Your task to perform on an android device: manage bookmarks in the chrome app Image 0: 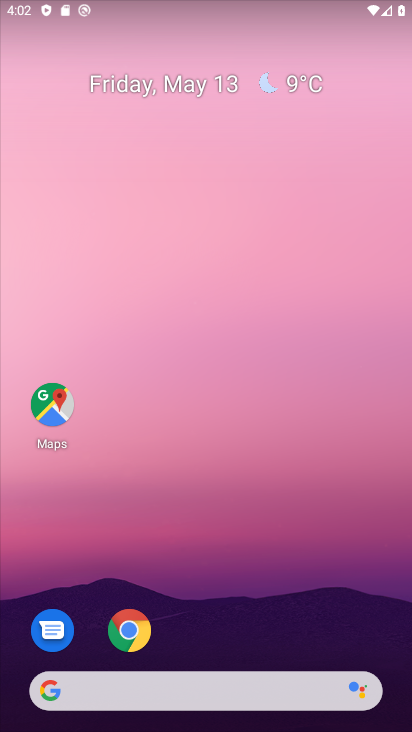
Step 0: drag from (248, 564) to (302, 126)
Your task to perform on an android device: manage bookmarks in the chrome app Image 1: 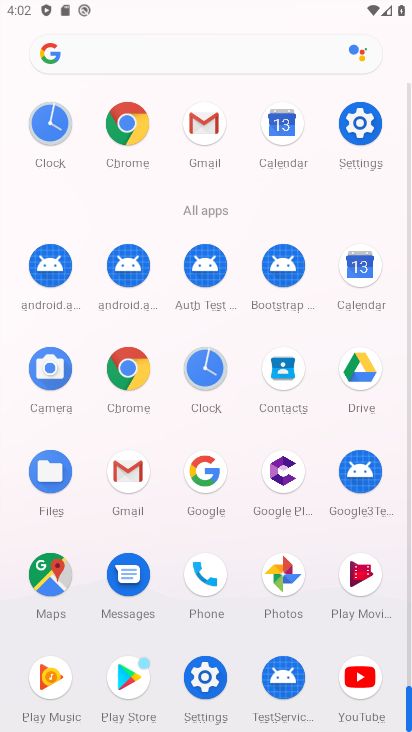
Step 1: click (21, 294)
Your task to perform on an android device: manage bookmarks in the chrome app Image 2: 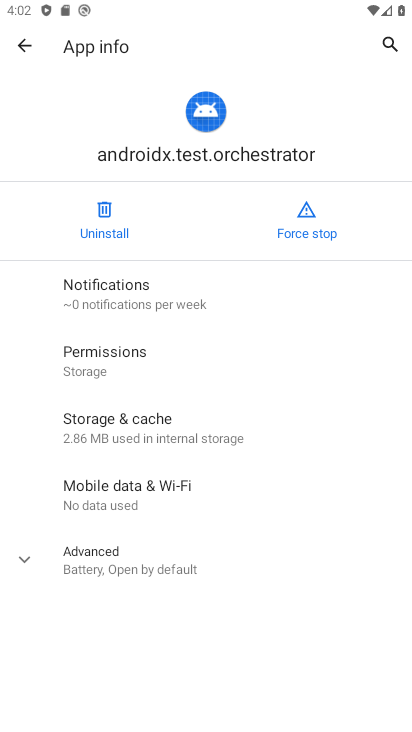
Step 2: click (27, 556)
Your task to perform on an android device: manage bookmarks in the chrome app Image 3: 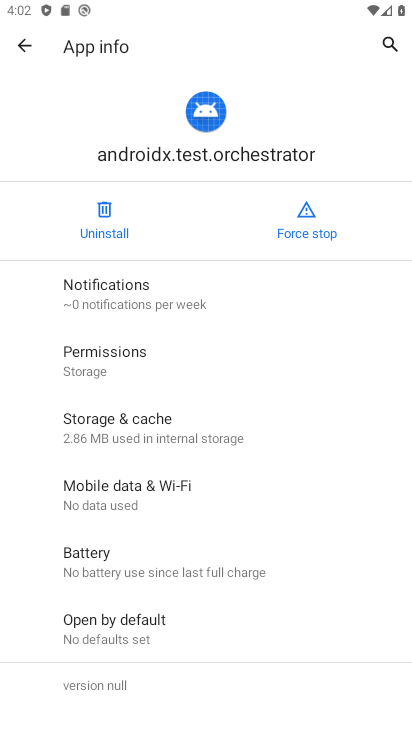
Step 3: drag from (241, 343) to (241, 258)
Your task to perform on an android device: manage bookmarks in the chrome app Image 4: 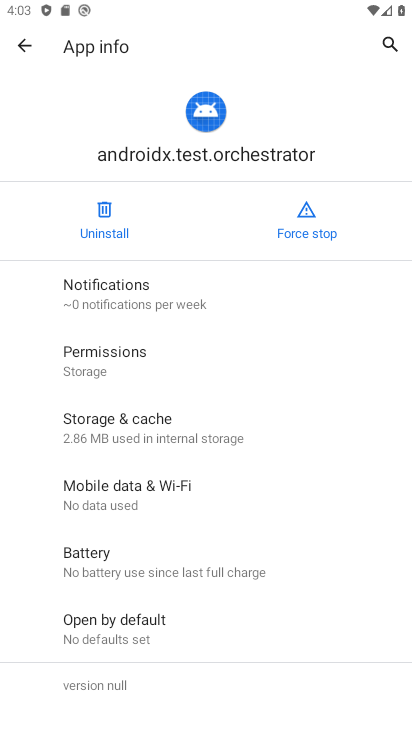
Step 4: press back button
Your task to perform on an android device: manage bookmarks in the chrome app Image 5: 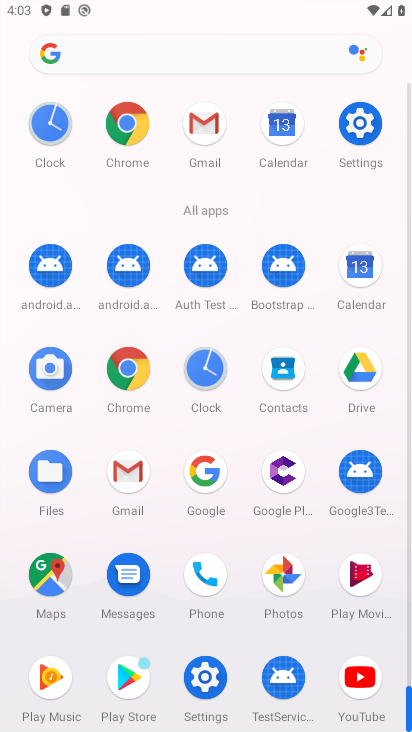
Step 5: press back button
Your task to perform on an android device: manage bookmarks in the chrome app Image 6: 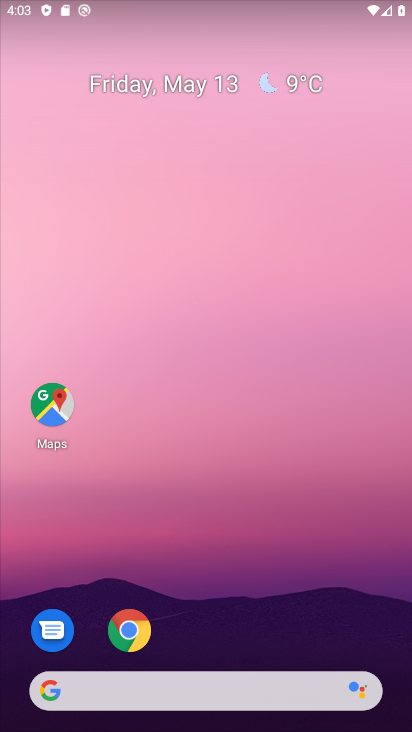
Step 6: click (128, 630)
Your task to perform on an android device: manage bookmarks in the chrome app Image 7: 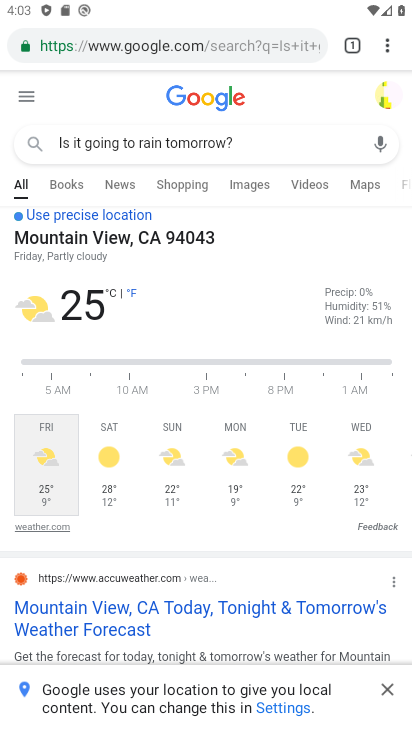
Step 7: task complete